Your task to perform on an android device: Show me recent news Image 0: 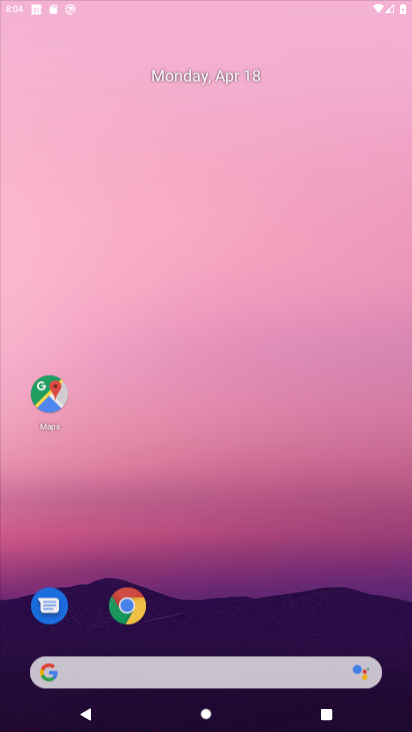
Step 0: drag from (244, 468) to (253, 204)
Your task to perform on an android device: Show me recent news Image 1: 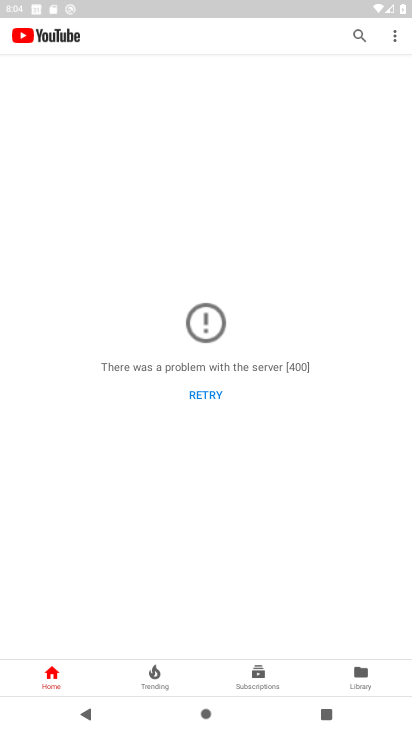
Step 1: press home button
Your task to perform on an android device: Show me recent news Image 2: 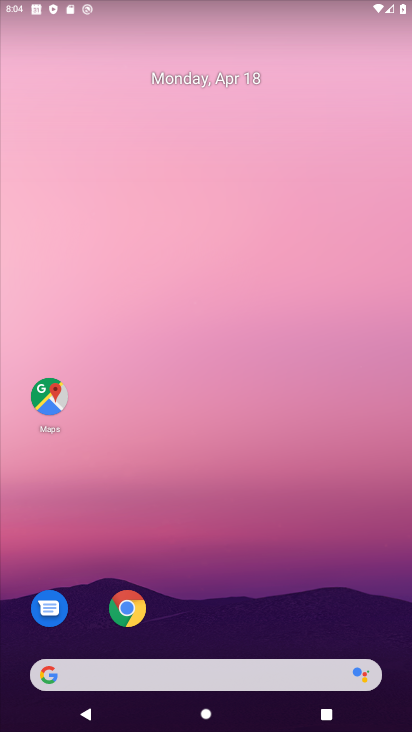
Step 2: drag from (220, 601) to (202, 206)
Your task to perform on an android device: Show me recent news Image 3: 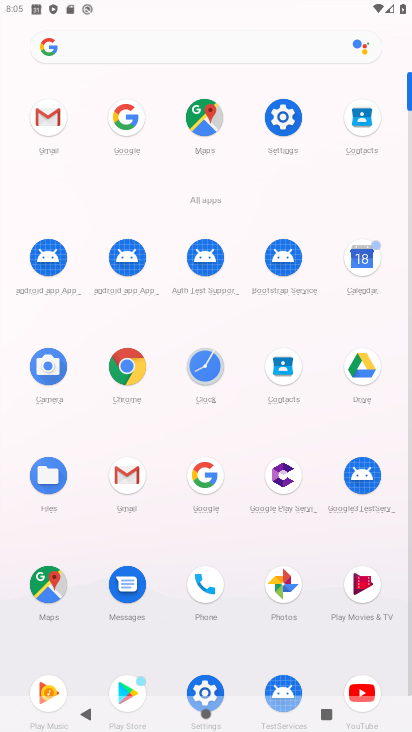
Step 3: click (121, 118)
Your task to perform on an android device: Show me recent news Image 4: 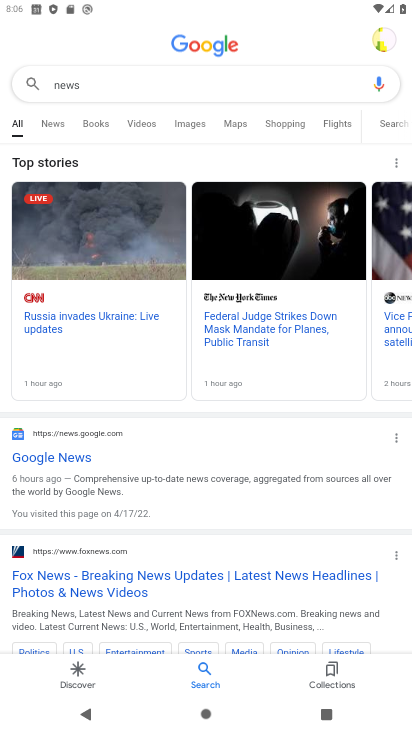
Step 4: task complete